Your task to perform on an android device: Go to calendar. Show me events next week Image 0: 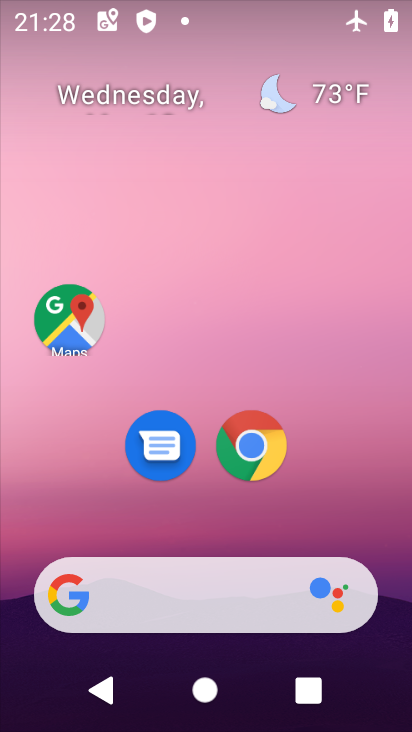
Step 0: click (303, 523)
Your task to perform on an android device: Go to calendar. Show me events next week Image 1: 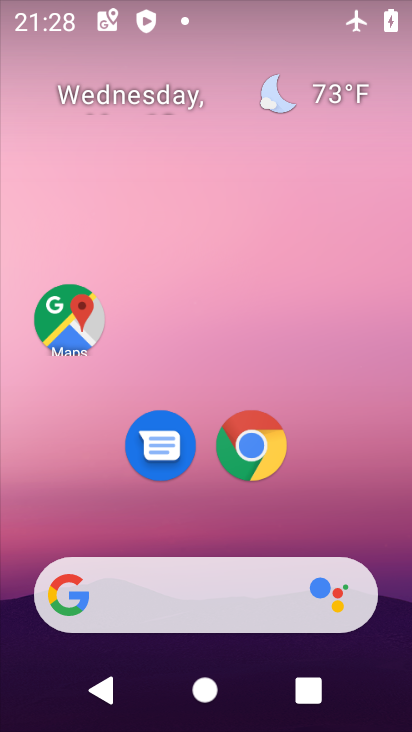
Step 1: drag from (300, 546) to (281, 93)
Your task to perform on an android device: Go to calendar. Show me events next week Image 2: 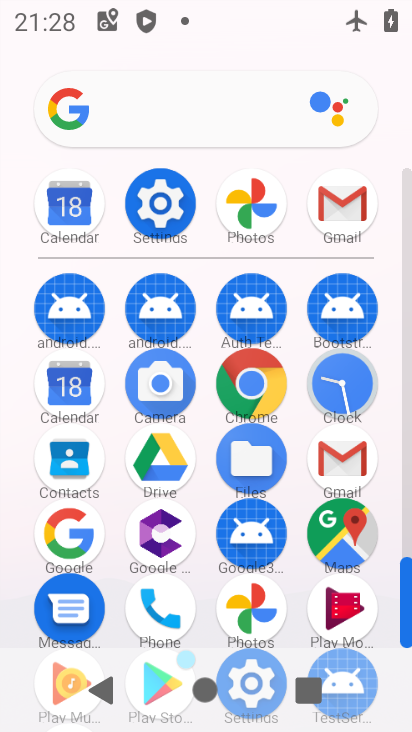
Step 2: click (67, 374)
Your task to perform on an android device: Go to calendar. Show me events next week Image 3: 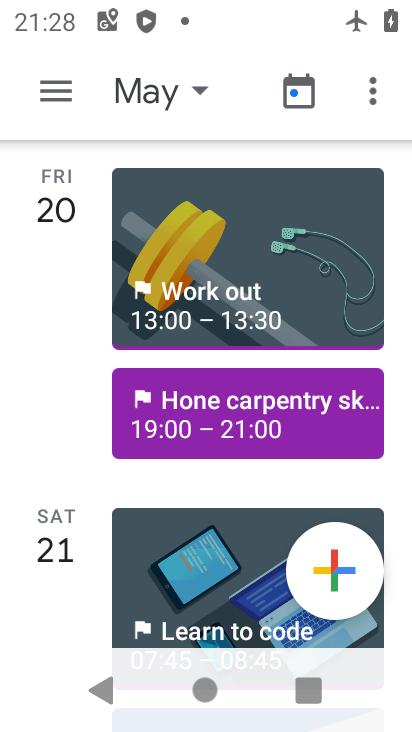
Step 3: click (41, 82)
Your task to perform on an android device: Go to calendar. Show me events next week Image 4: 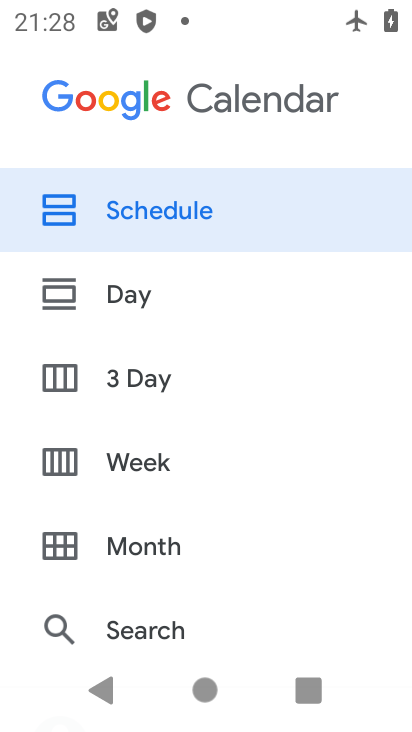
Step 4: click (146, 458)
Your task to perform on an android device: Go to calendar. Show me events next week Image 5: 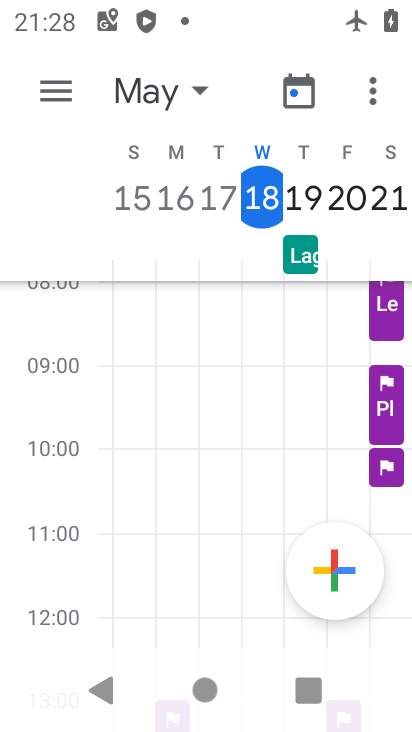
Step 5: task complete